Your task to perform on an android device: open wifi settings Image 0: 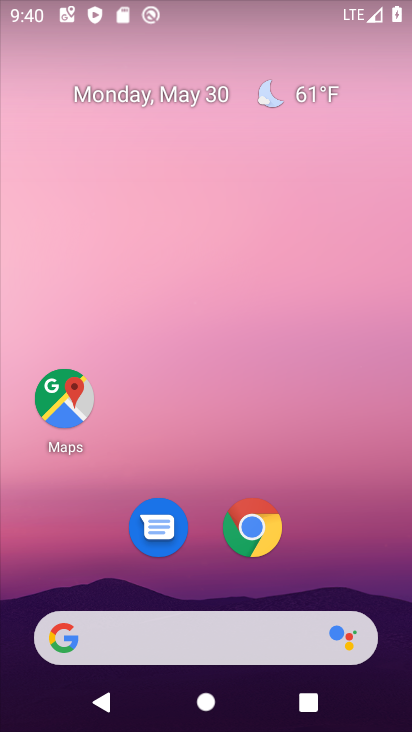
Step 0: drag from (310, 582) to (233, 1)
Your task to perform on an android device: open wifi settings Image 1: 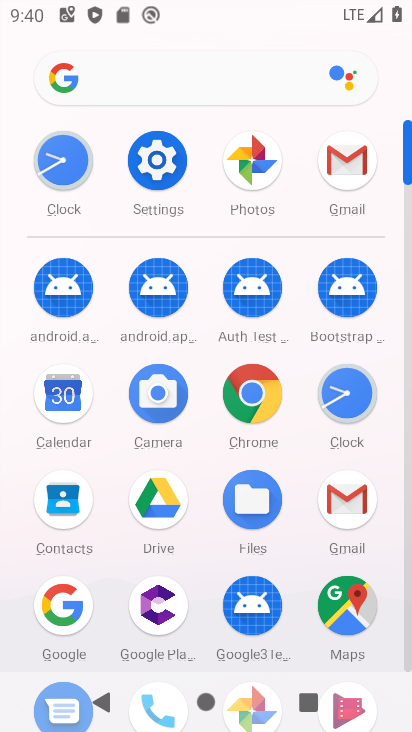
Step 1: click (152, 152)
Your task to perform on an android device: open wifi settings Image 2: 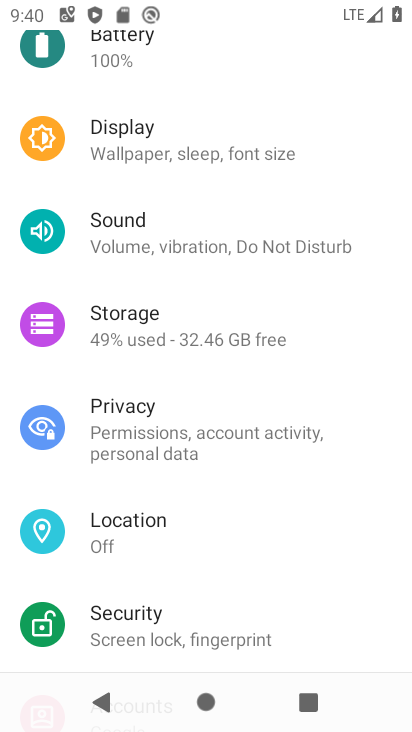
Step 2: drag from (180, 133) to (264, 434)
Your task to perform on an android device: open wifi settings Image 3: 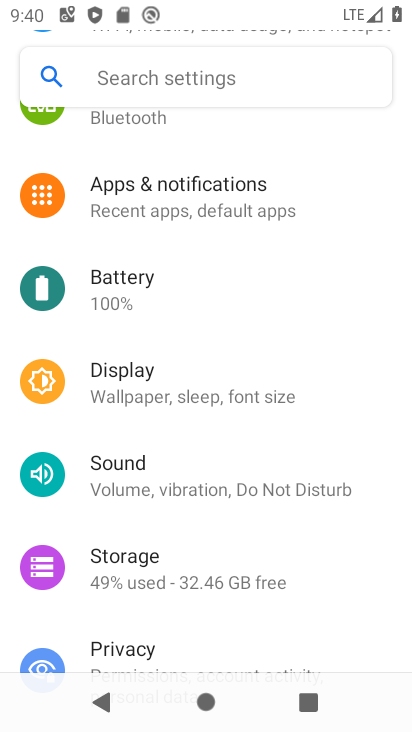
Step 3: drag from (251, 225) to (279, 578)
Your task to perform on an android device: open wifi settings Image 4: 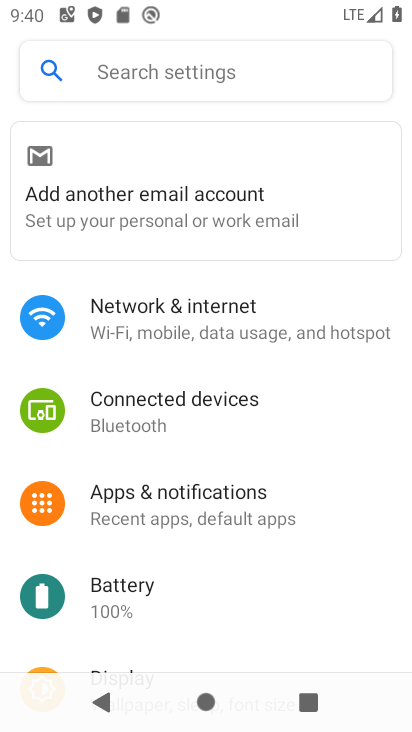
Step 4: click (224, 318)
Your task to perform on an android device: open wifi settings Image 5: 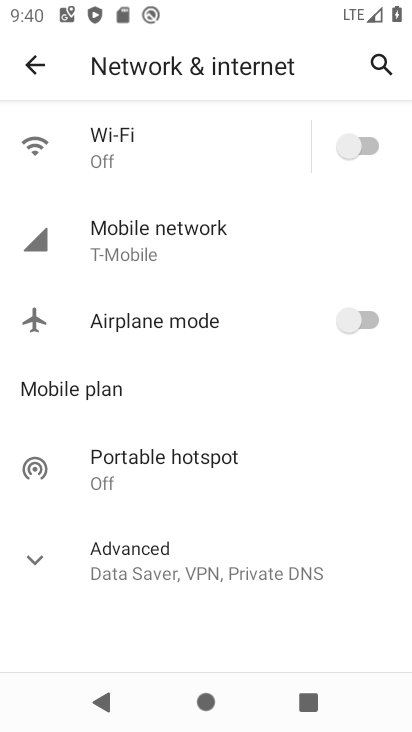
Step 5: click (105, 150)
Your task to perform on an android device: open wifi settings Image 6: 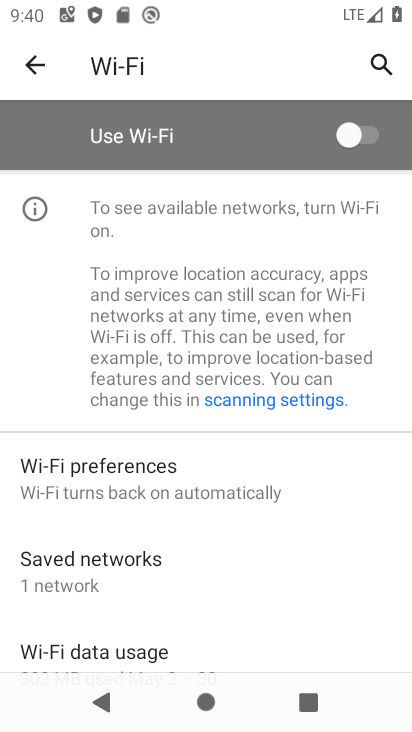
Step 6: task complete